Your task to perform on an android device: Open CNN.com Image 0: 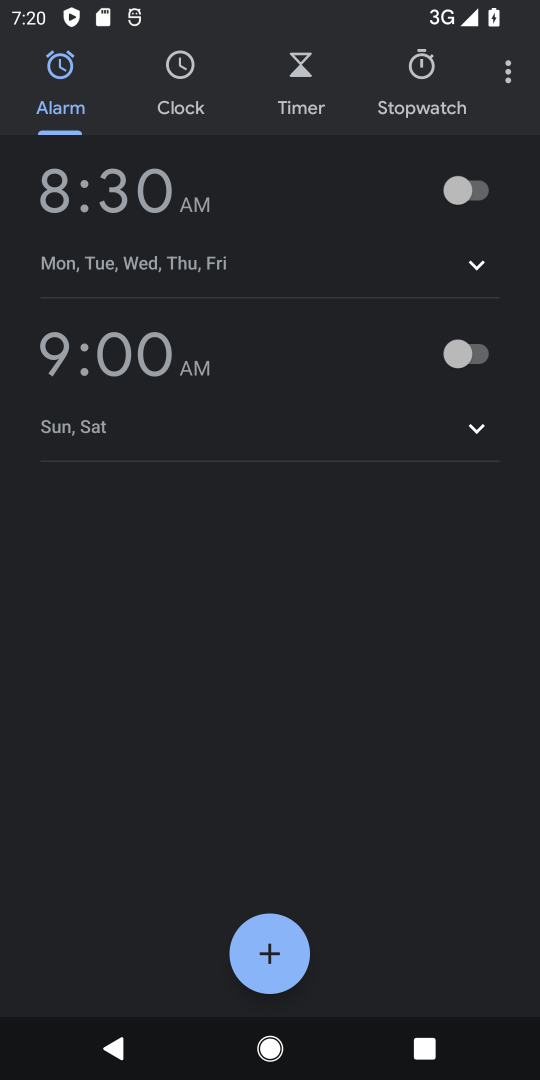
Step 0: press back button
Your task to perform on an android device: Open CNN.com Image 1: 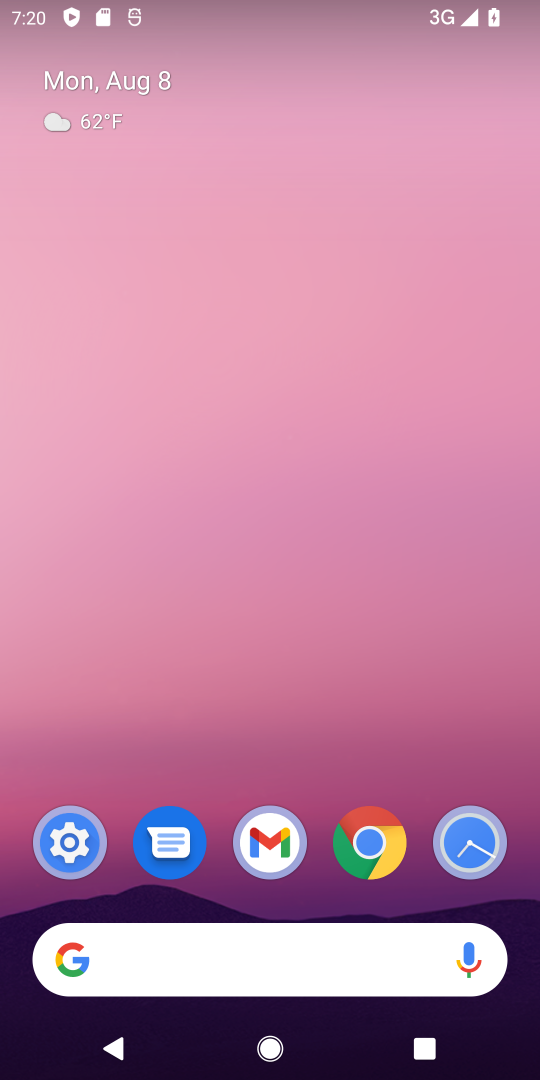
Step 1: click (408, 855)
Your task to perform on an android device: Open CNN.com Image 2: 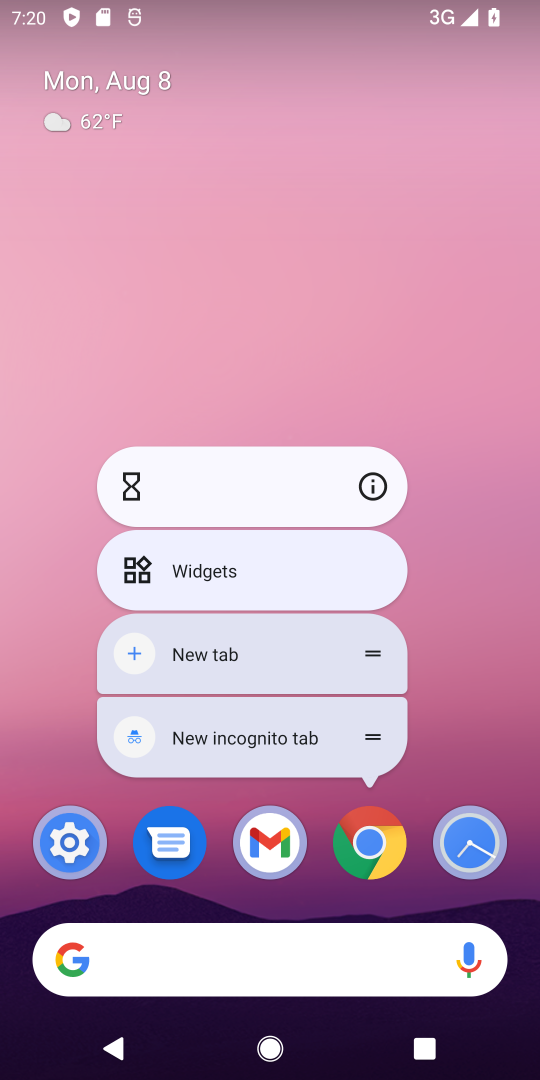
Step 2: click (369, 843)
Your task to perform on an android device: Open CNN.com Image 3: 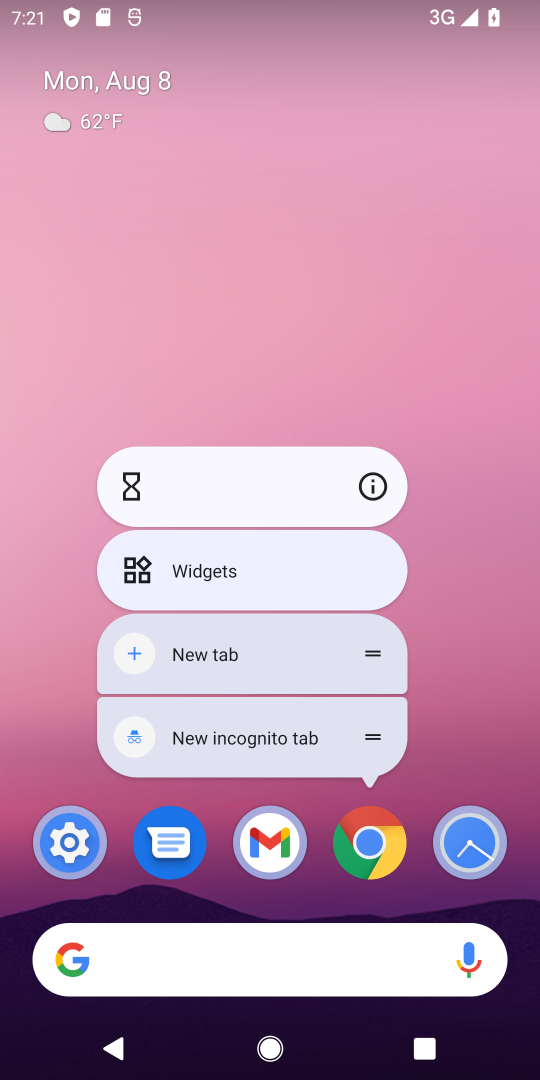
Step 3: click (369, 863)
Your task to perform on an android device: Open CNN.com Image 4: 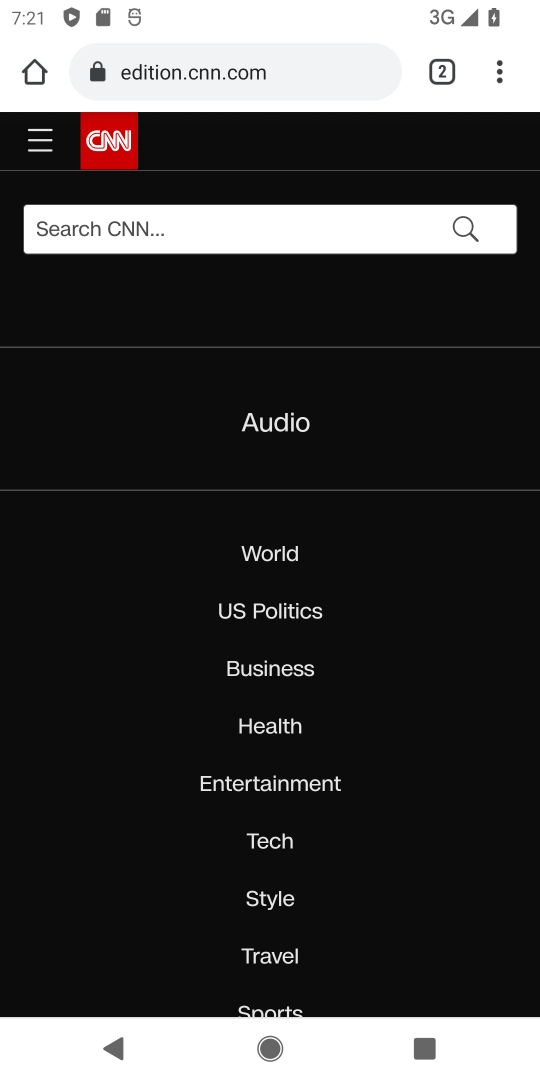
Step 4: task complete